Your task to perform on an android device: Go to Google Image 0: 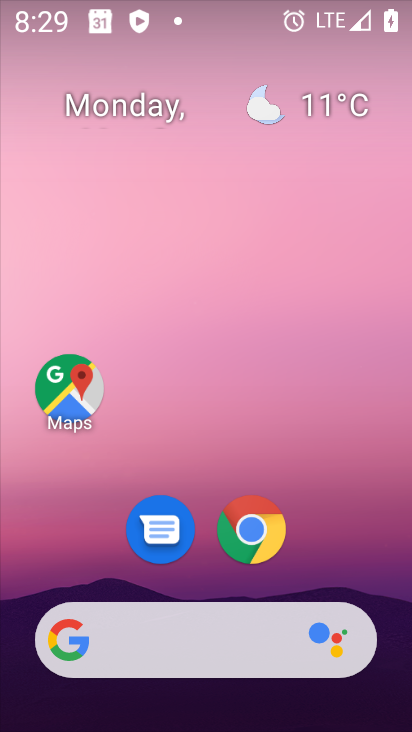
Step 0: drag from (189, 634) to (207, 155)
Your task to perform on an android device: Go to Google Image 1: 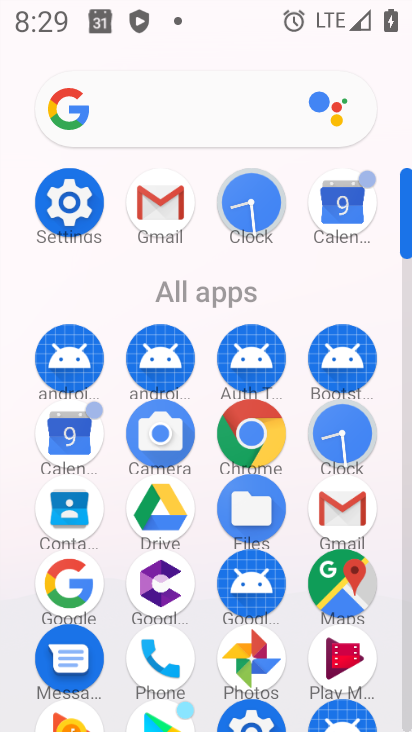
Step 1: click (74, 598)
Your task to perform on an android device: Go to Google Image 2: 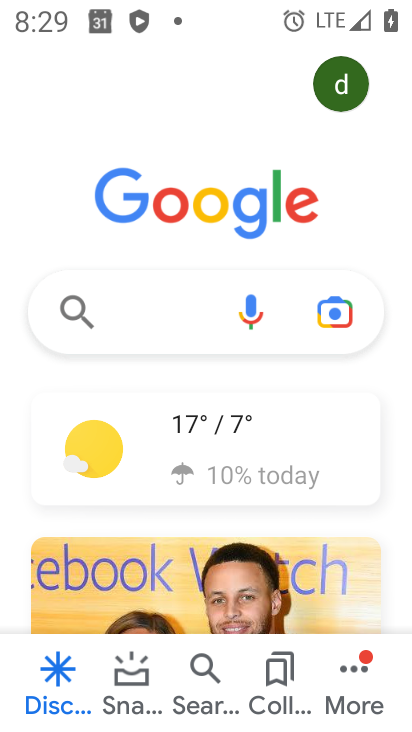
Step 2: task complete